Your task to perform on an android device: Set the phone to "Do not disturb". Image 0: 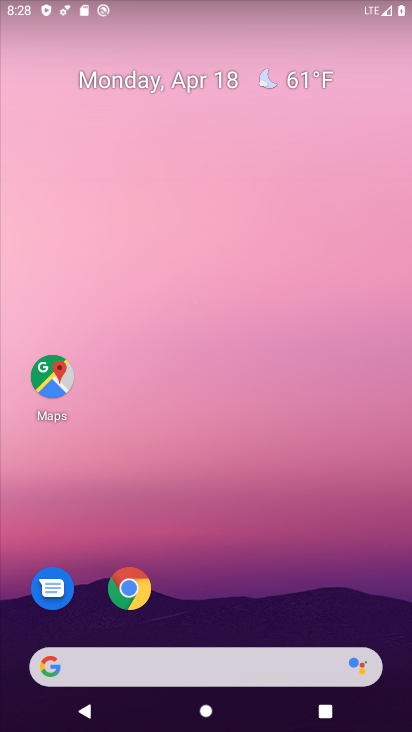
Step 0: drag from (385, 631) to (341, 190)
Your task to perform on an android device: Set the phone to "Do not disturb". Image 1: 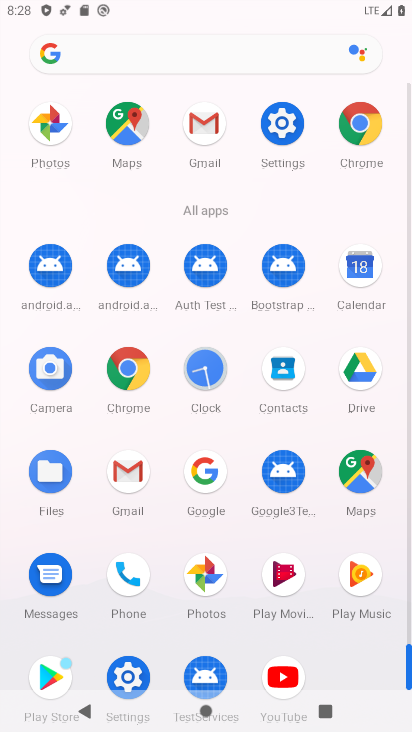
Step 1: click (124, 675)
Your task to perform on an android device: Set the phone to "Do not disturb". Image 2: 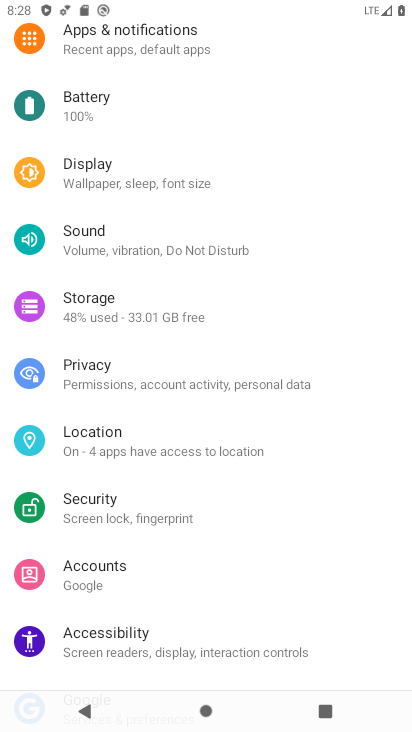
Step 2: click (84, 231)
Your task to perform on an android device: Set the phone to "Do not disturb". Image 3: 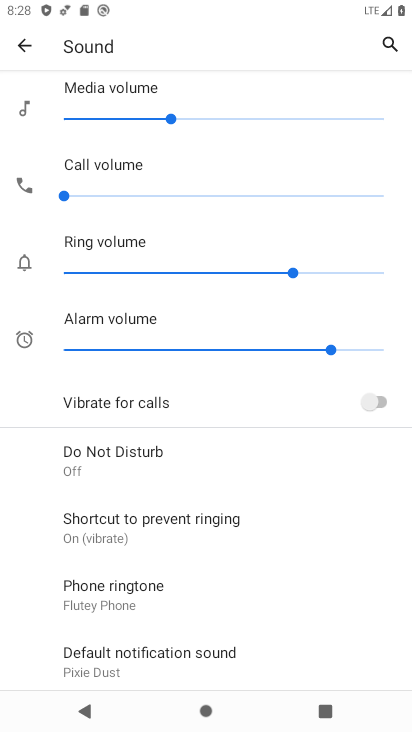
Step 3: click (71, 461)
Your task to perform on an android device: Set the phone to "Do not disturb". Image 4: 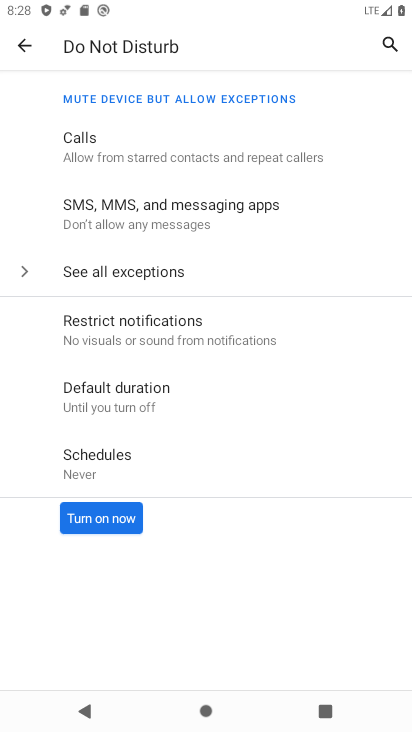
Step 4: click (95, 523)
Your task to perform on an android device: Set the phone to "Do not disturb". Image 5: 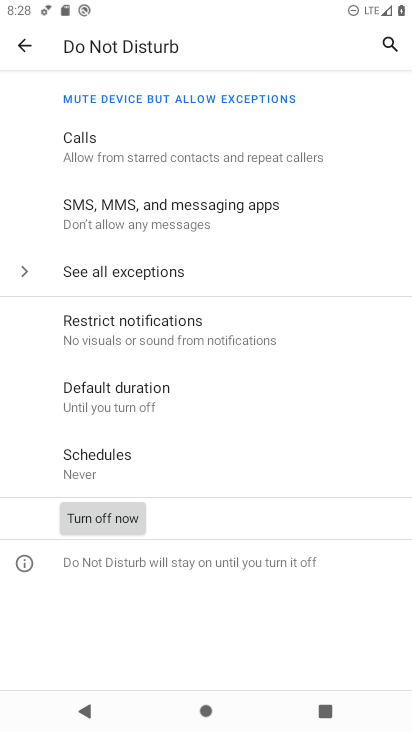
Step 5: task complete